Your task to perform on an android device: Open Youtube and go to the subscriptions tab Image 0: 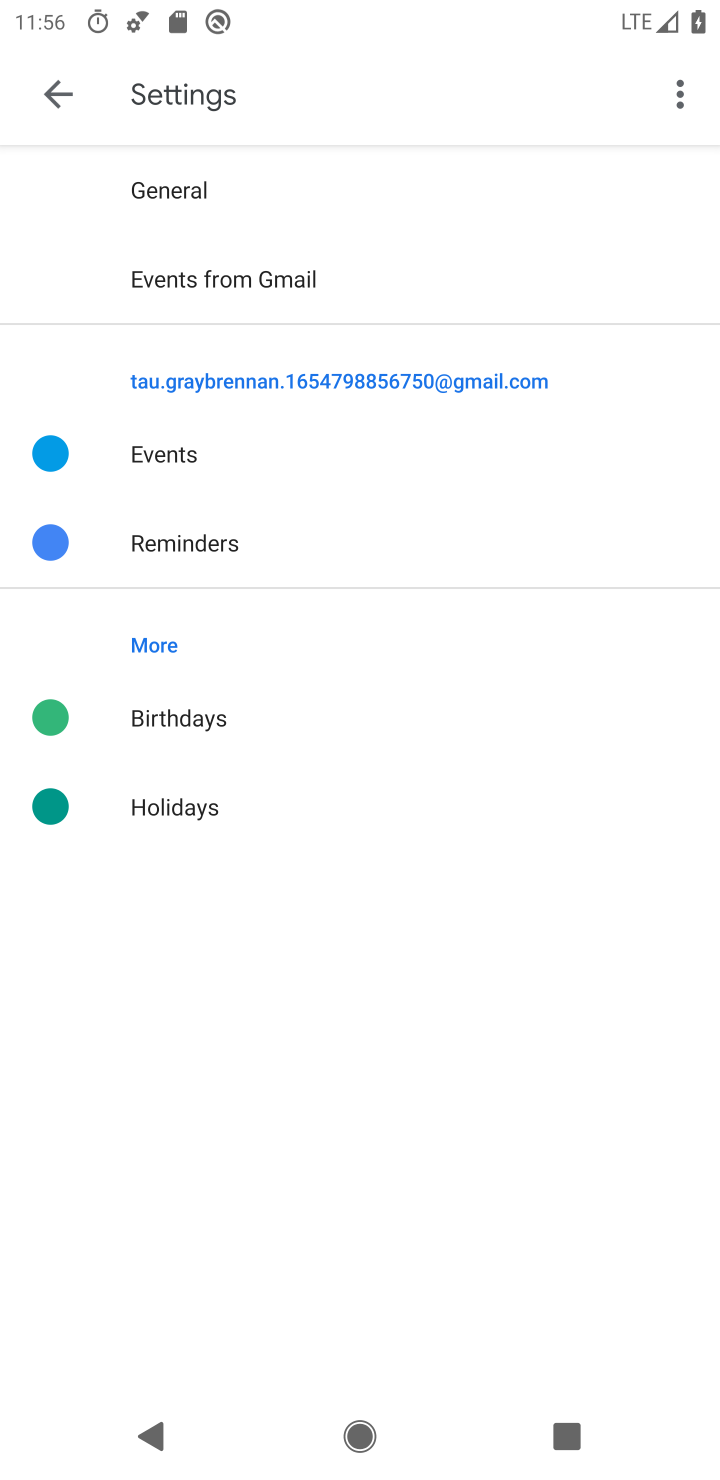
Step 0: press home button
Your task to perform on an android device: Open Youtube and go to the subscriptions tab Image 1: 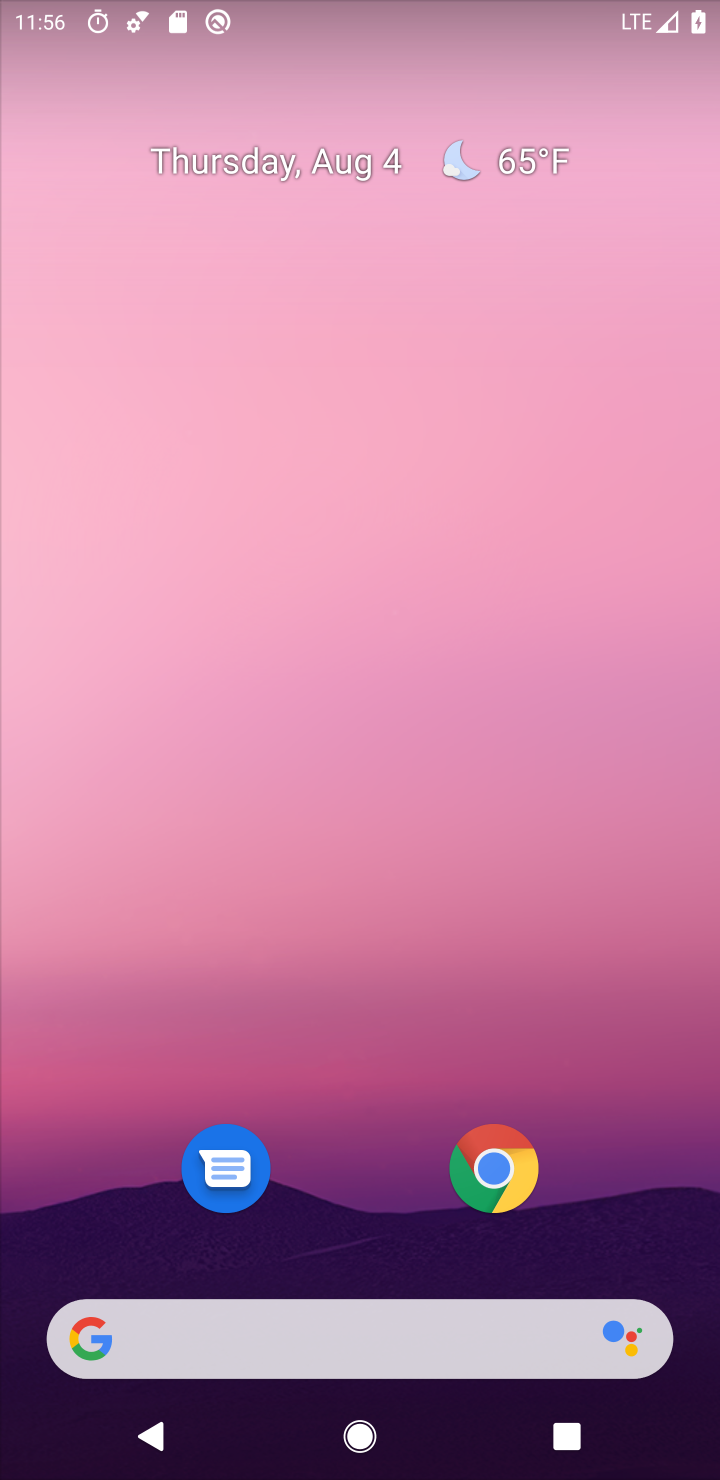
Step 1: drag from (334, 1202) to (492, 25)
Your task to perform on an android device: Open Youtube and go to the subscriptions tab Image 2: 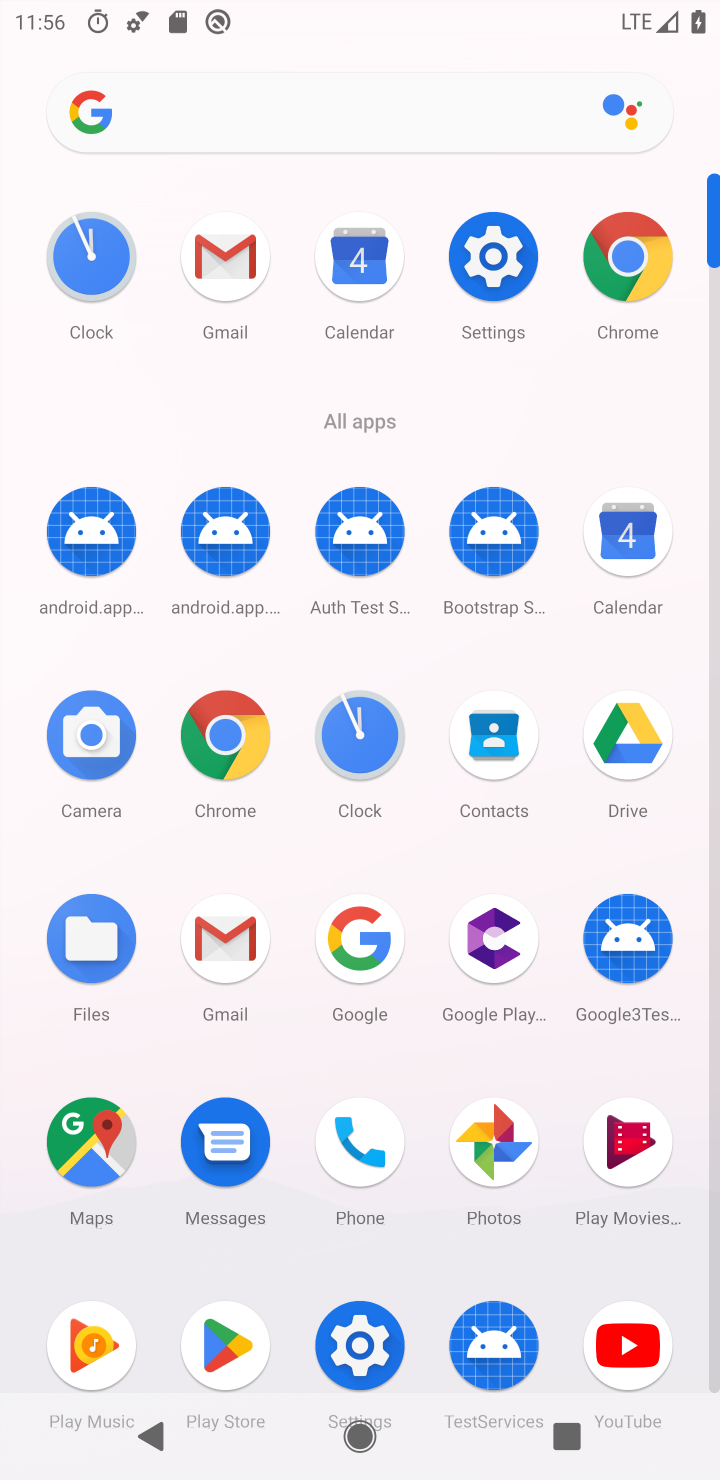
Step 2: click (624, 1327)
Your task to perform on an android device: Open Youtube and go to the subscriptions tab Image 3: 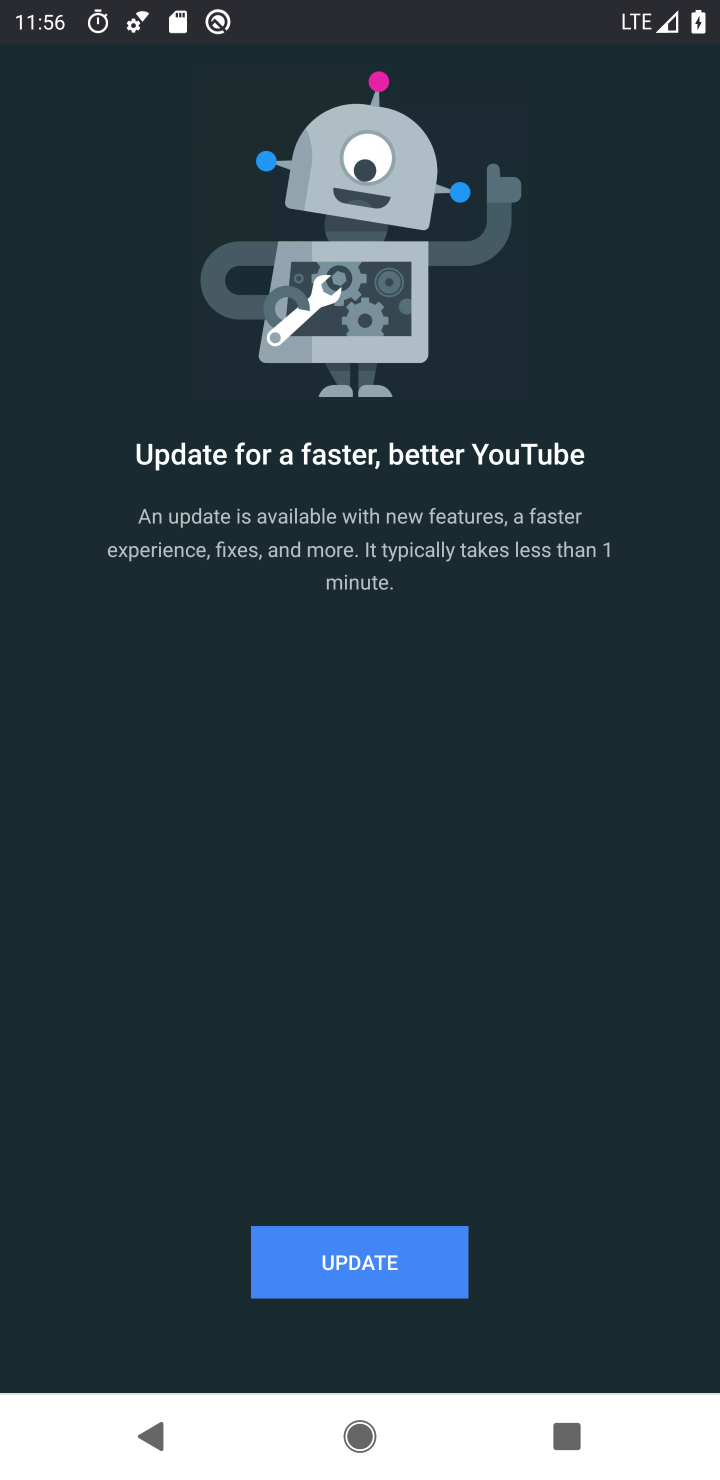
Step 3: click (405, 1259)
Your task to perform on an android device: Open Youtube and go to the subscriptions tab Image 4: 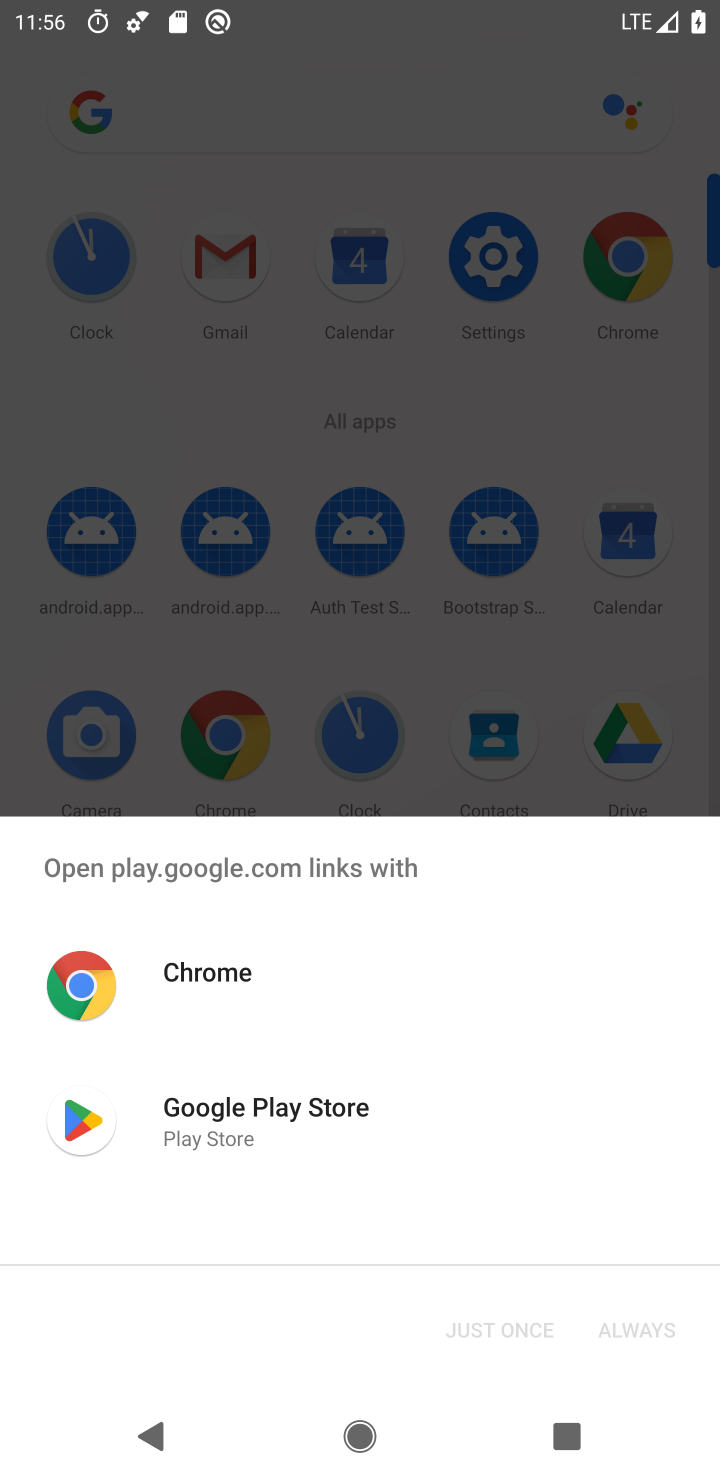
Step 4: click (237, 1118)
Your task to perform on an android device: Open Youtube and go to the subscriptions tab Image 5: 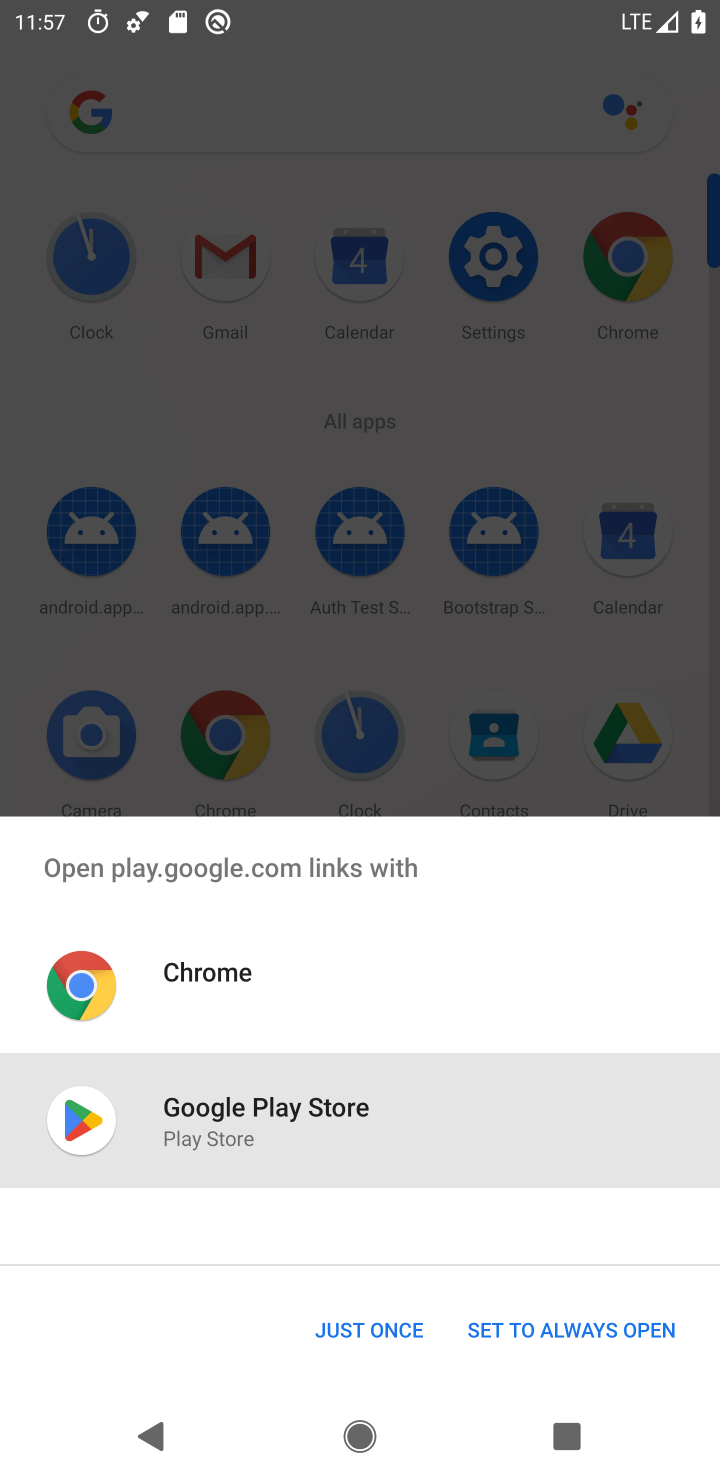
Step 5: click (371, 1329)
Your task to perform on an android device: Open Youtube and go to the subscriptions tab Image 6: 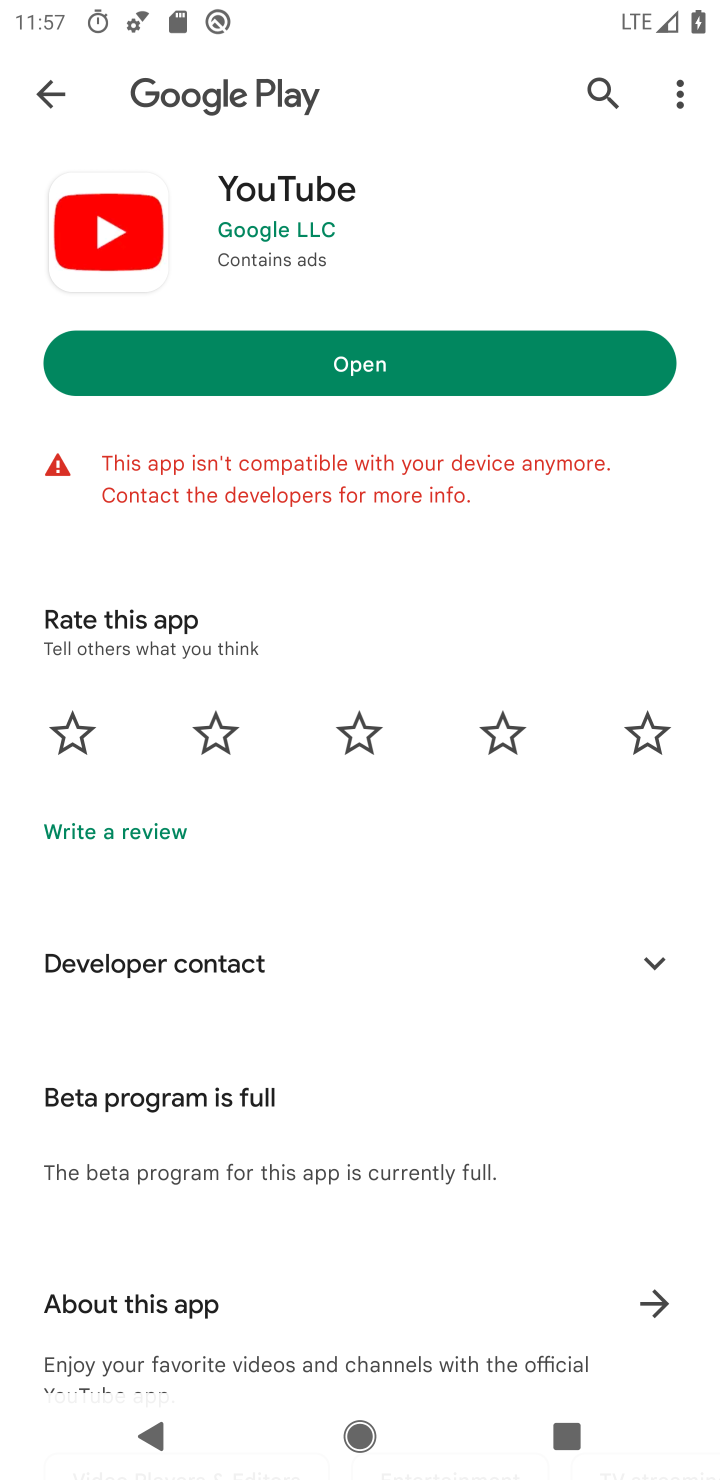
Step 6: click (443, 357)
Your task to perform on an android device: Open Youtube and go to the subscriptions tab Image 7: 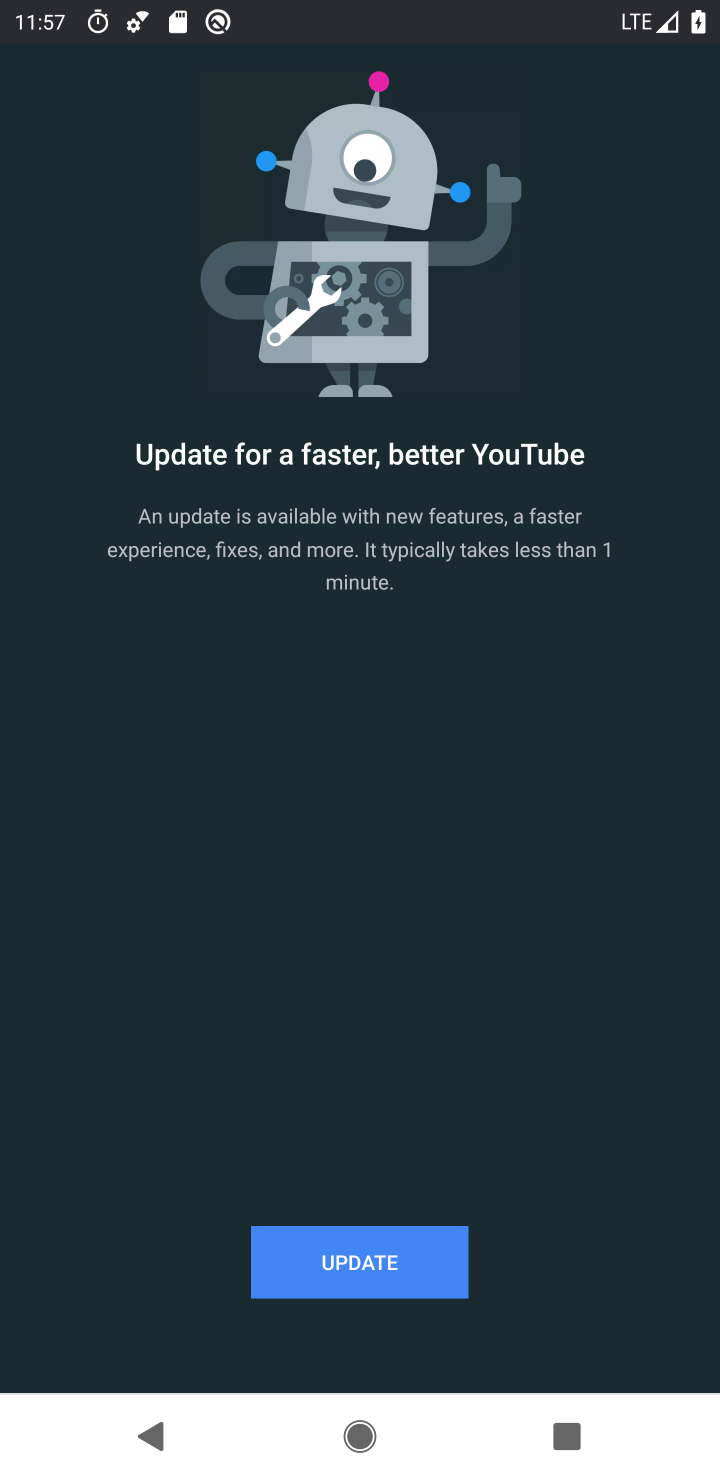
Step 7: click (405, 1237)
Your task to perform on an android device: Open Youtube and go to the subscriptions tab Image 8: 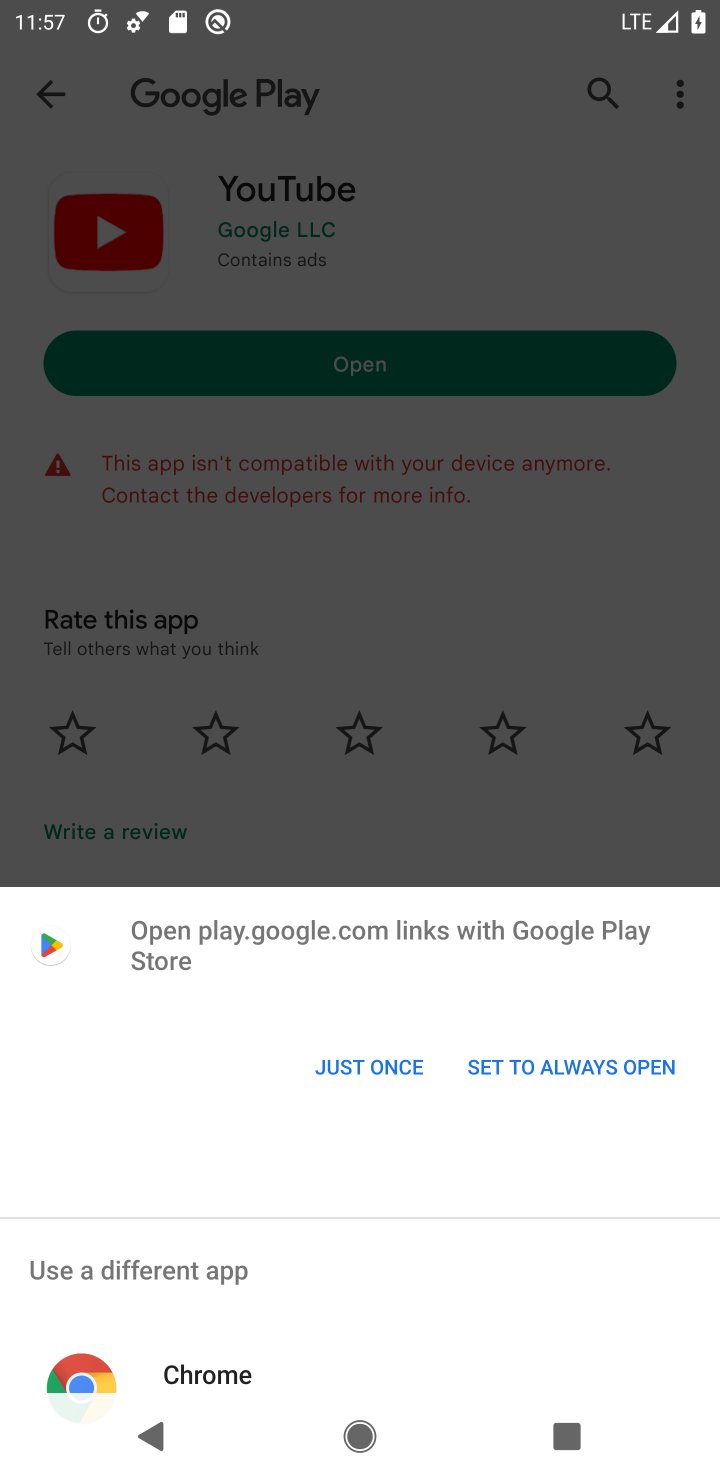
Step 8: click (385, 1072)
Your task to perform on an android device: Open Youtube and go to the subscriptions tab Image 9: 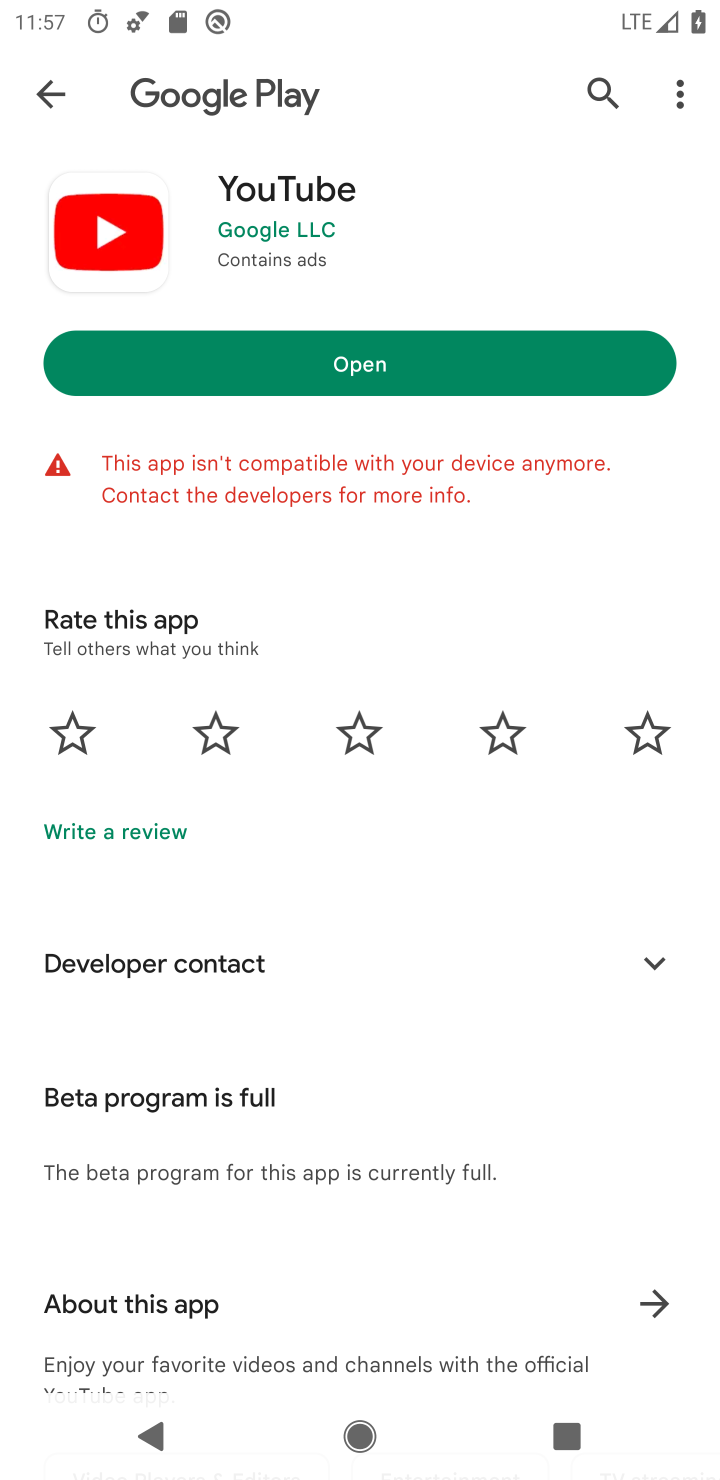
Step 9: click (121, 219)
Your task to perform on an android device: Open Youtube and go to the subscriptions tab Image 10: 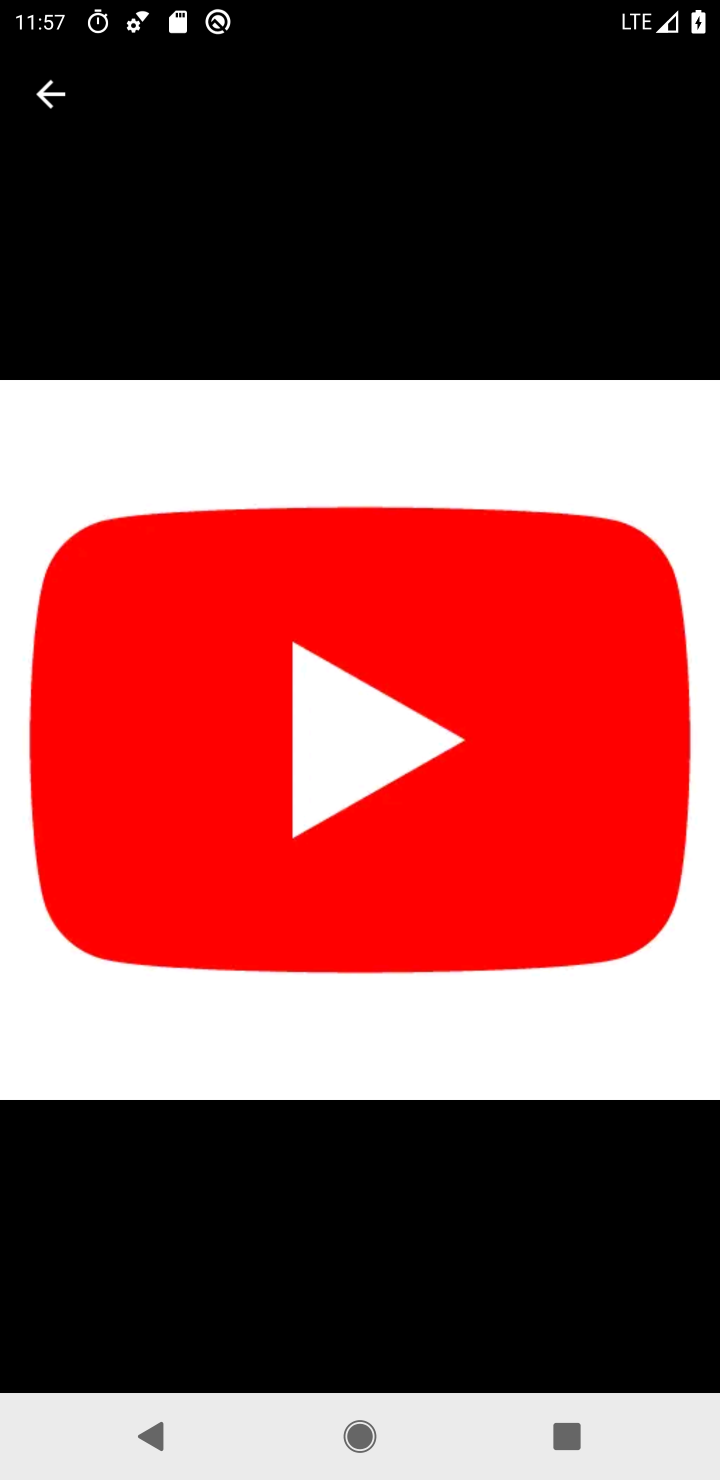
Step 10: click (48, 86)
Your task to perform on an android device: Open Youtube and go to the subscriptions tab Image 11: 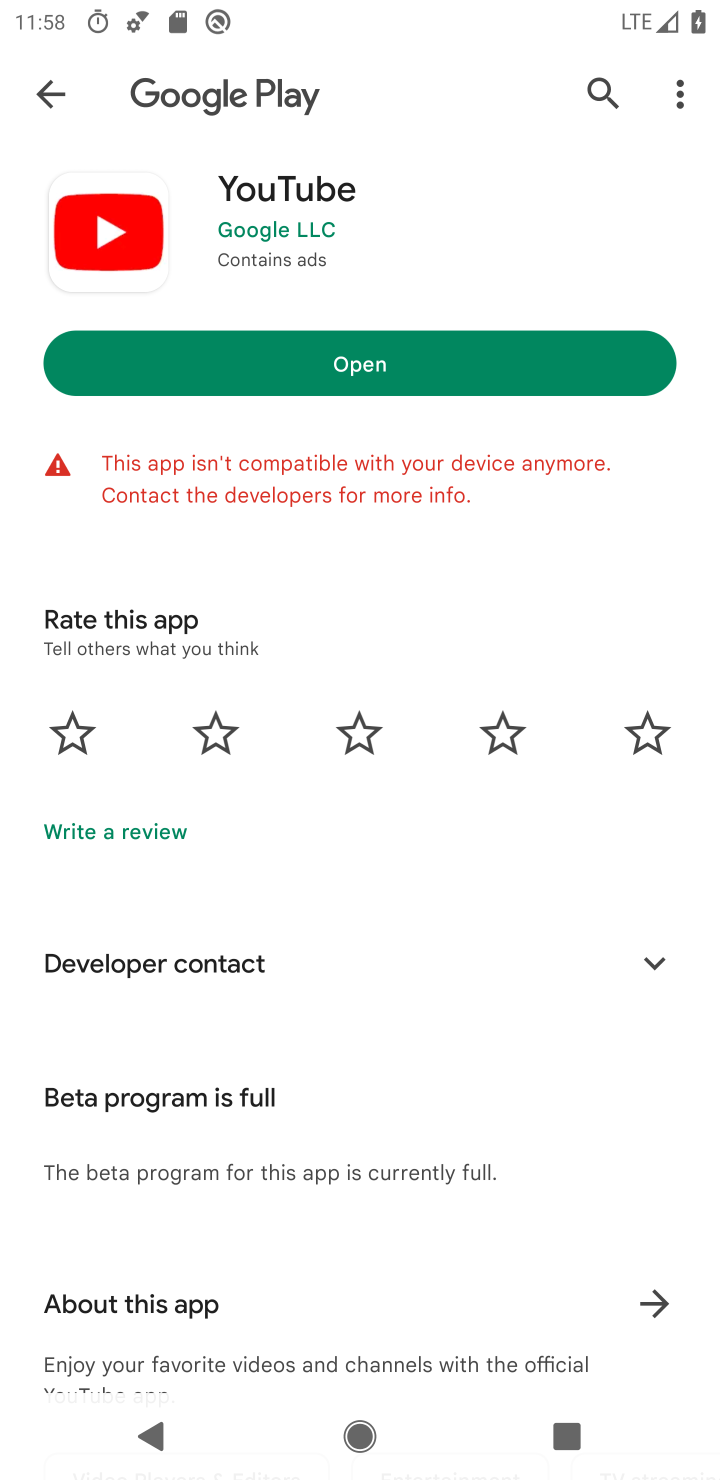
Step 11: click (328, 209)
Your task to perform on an android device: Open Youtube and go to the subscriptions tab Image 12: 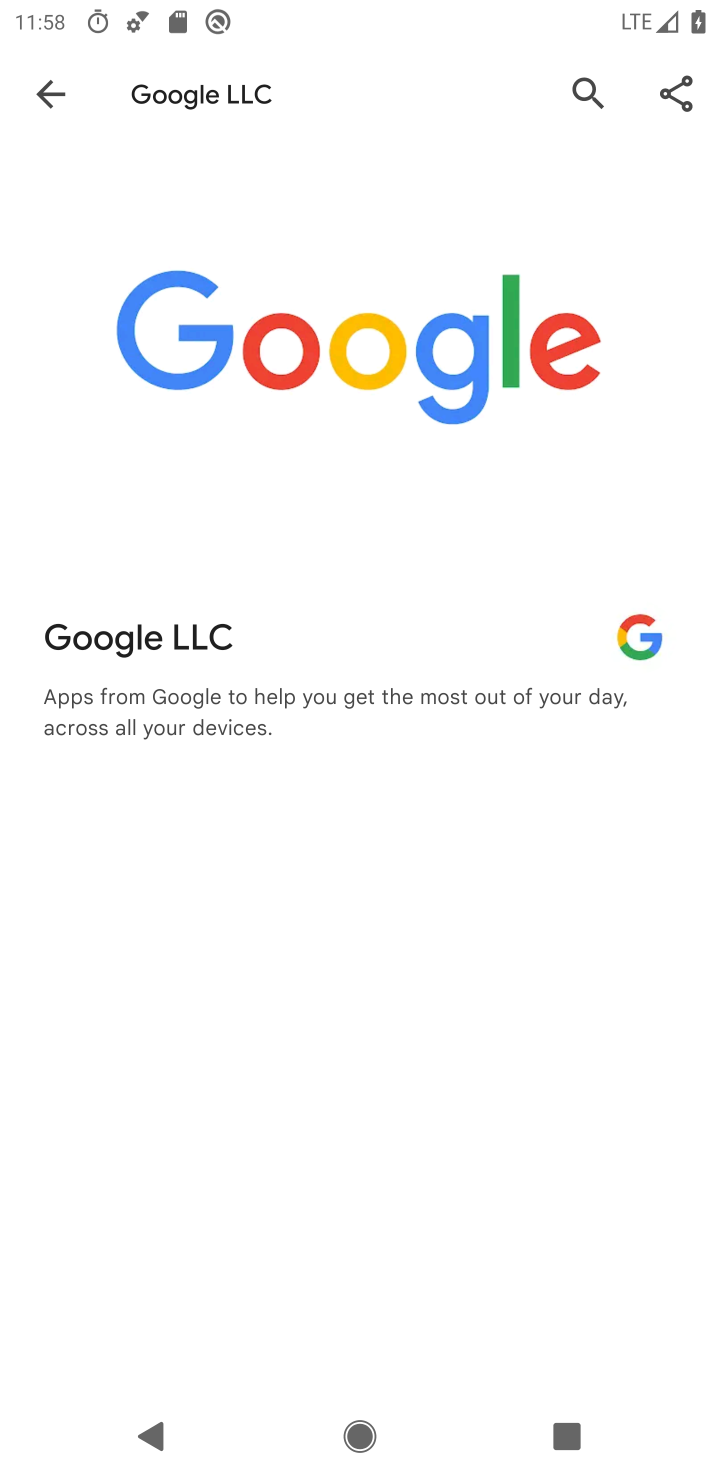
Step 12: click (69, 86)
Your task to perform on an android device: Open Youtube and go to the subscriptions tab Image 13: 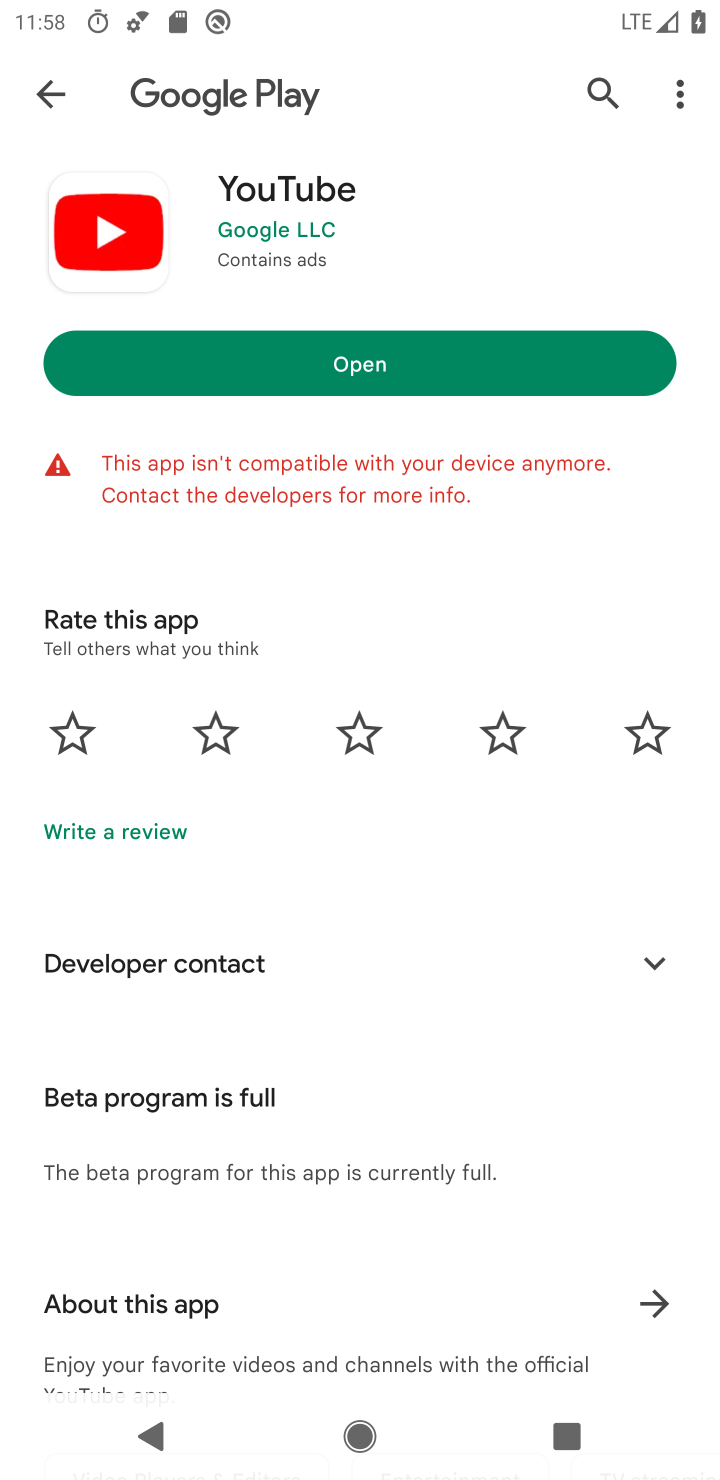
Step 13: task complete